Your task to perform on an android device: refresh tabs in the chrome app Image 0: 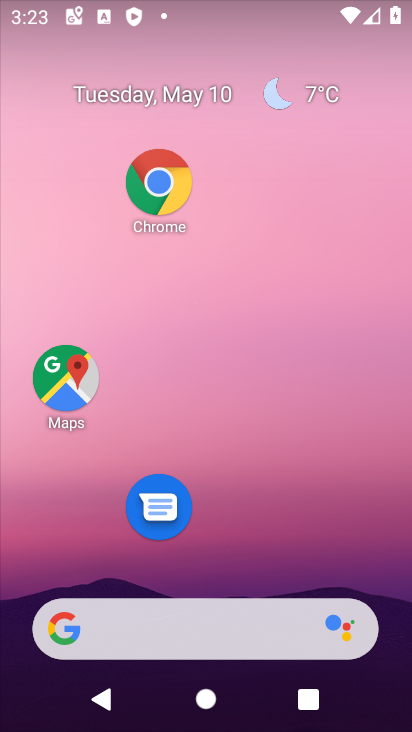
Step 0: click (156, 226)
Your task to perform on an android device: refresh tabs in the chrome app Image 1: 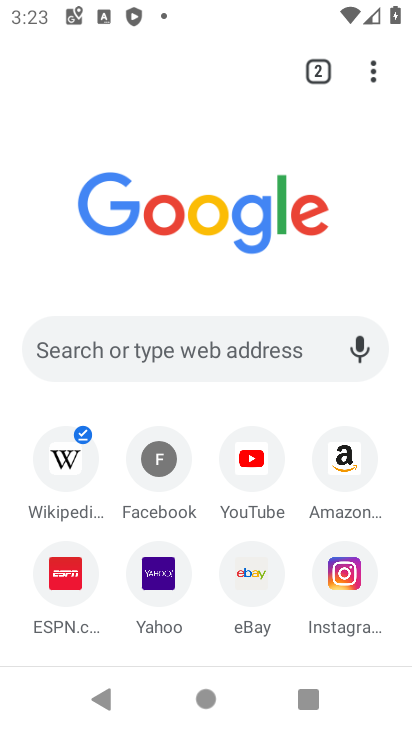
Step 1: click (365, 78)
Your task to perform on an android device: refresh tabs in the chrome app Image 2: 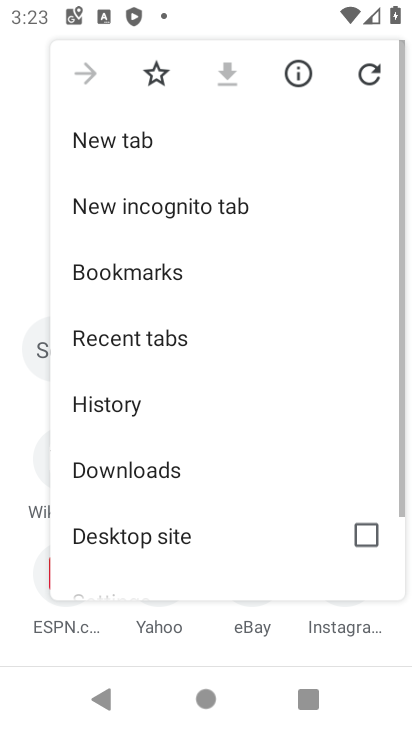
Step 2: click (365, 78)
Your task to perform on an android device: refresh tabs in the chrome app Image 3: 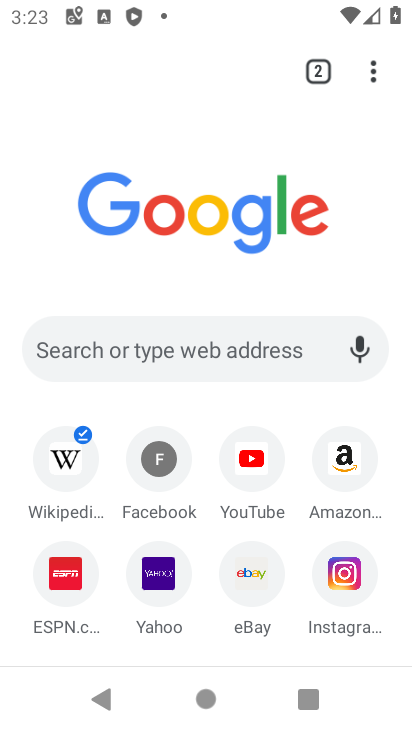
Step 3: task complete